Your task to perform on an android device: open app "DuckDuckGo Privacy Browser" (install if not already installed) and enter user name: "cleaving@outlook.com" and password: "freighters" Image 0: 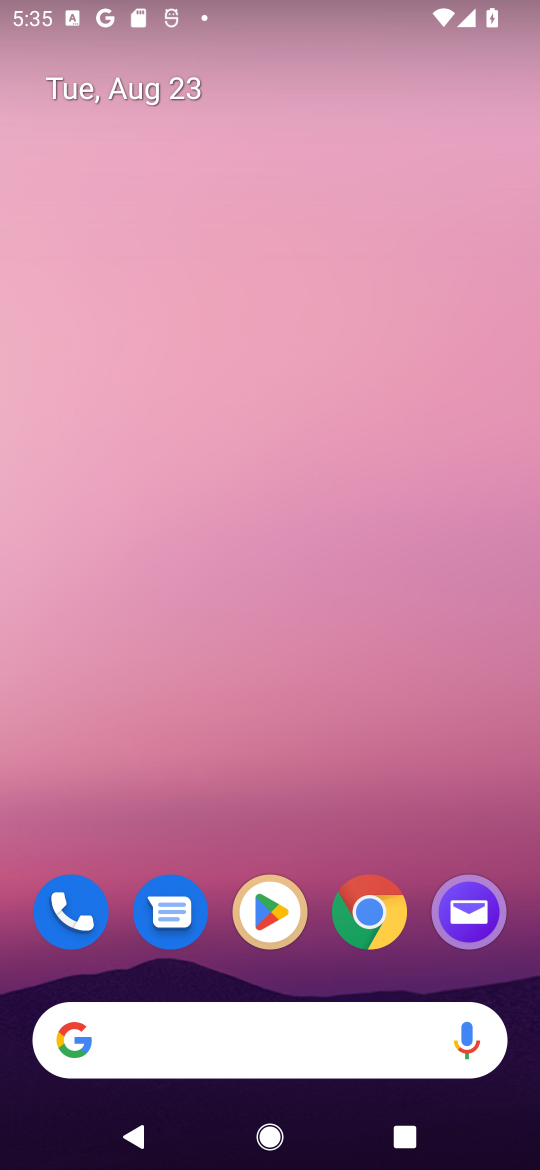
Step 0: drag from (226, 1011) to (217, 234)
Your task to perform on an android device: open app "DuckDuckGo Privacy Browser" (install if not already installed) and enter user name: "cleaving@outlook.com" and password: "freighters" Image 1: 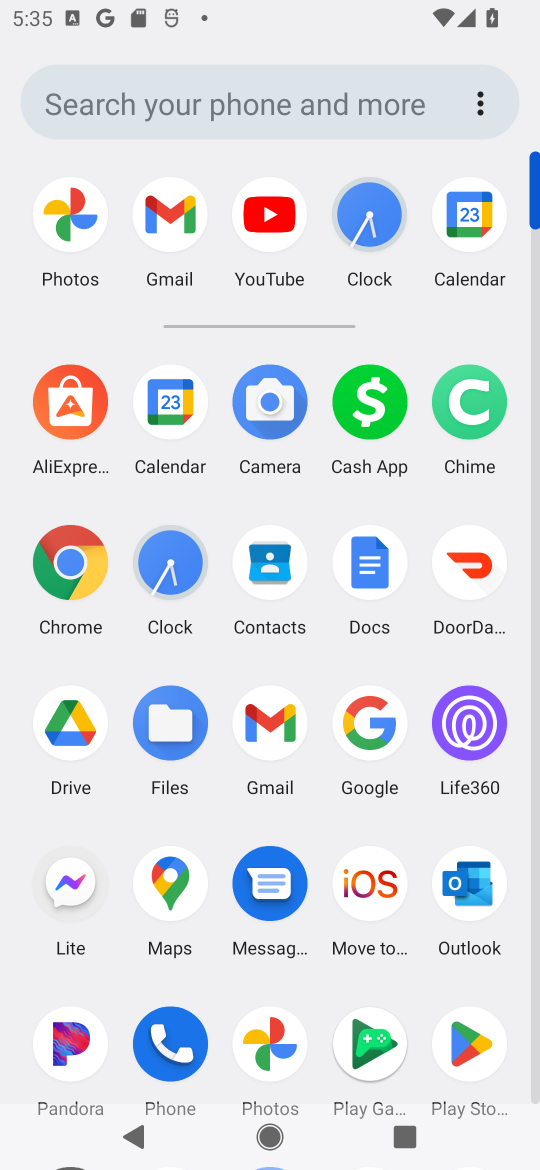
Step 1: drag from (309, 982) to (299, 396)
Your task to perform on an android device: open app "DuckDuckGo Privacy Browser" (install if not already installed) and enter user name: "cleaving@outlook.com" and password: "freighters" Image 2: 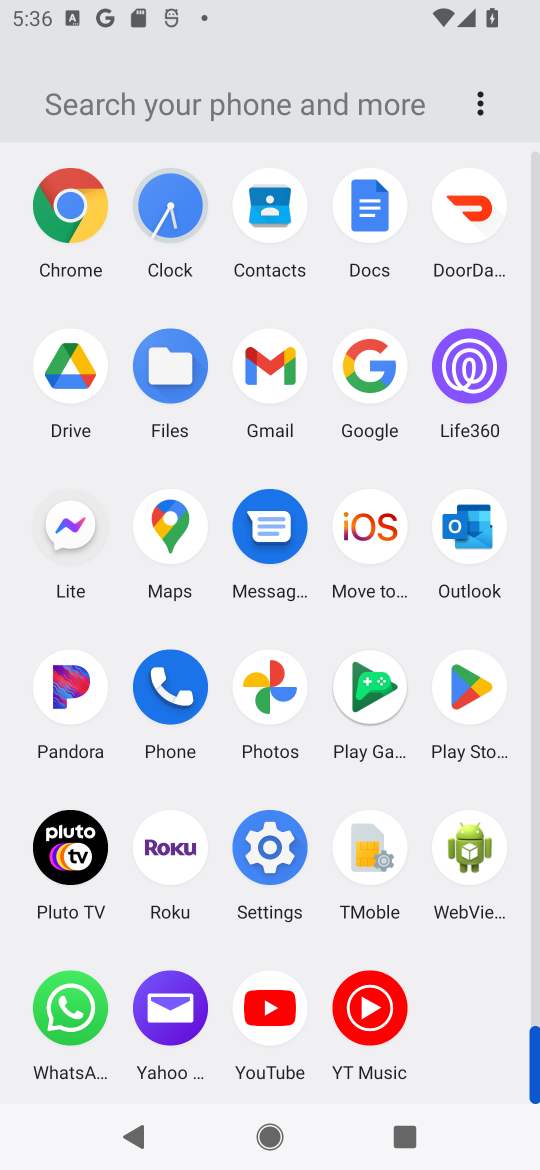
Step 2: click (466, 672)
Your task to perform on an android device: open app "DuckDuckGo Privacy Browser" (install if not already installed) and enter user name: "cleaving@outlook.com" and password: "freighters" Image 3: 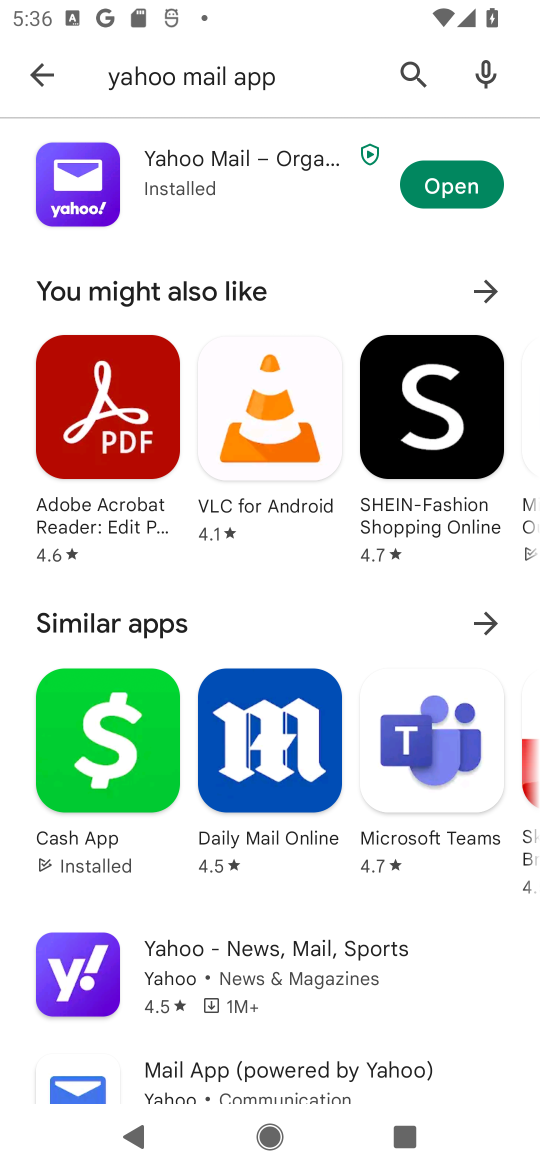
Step 3: click (37, 82)
Your task to perform on an android device: open app "DuckDuckGo Privacy Browser" (install if not already installed) and enter user name: "cleaving@outlook.com" and password: "freighters" Image 4: 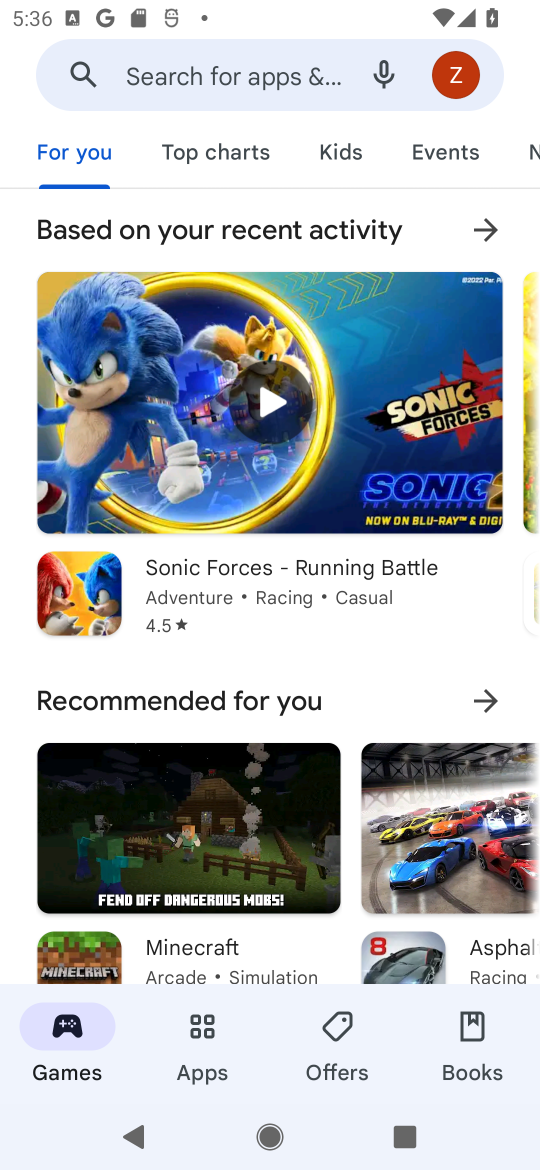
Step 4: click (243, 52)
Your task to perform on an android device: open app "DuckDuckGo Privacy Browser" (install if not already installed) and enter user name: "cleaving@outlook.com" and password: "freighters" Image 5: 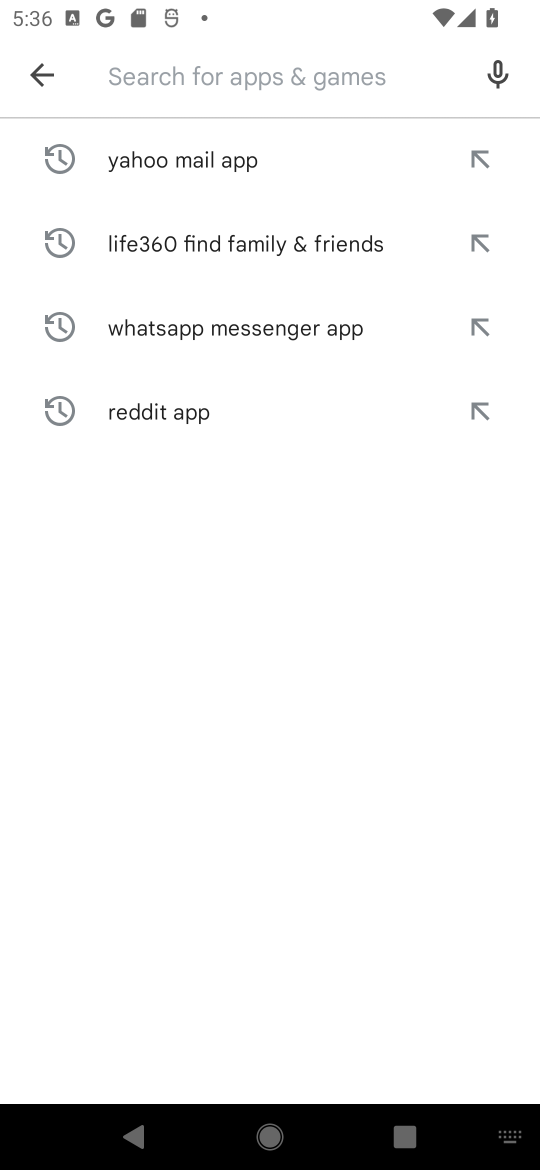
Step 5: type "DuckDuckGo Privacy Browser "
Your task to perform on an android device: open app "DuckDuckGo Privacy Browser" (install if not already installed) and enter user name: "cleaving@outlook.com" and password: "freighters" Image 6: 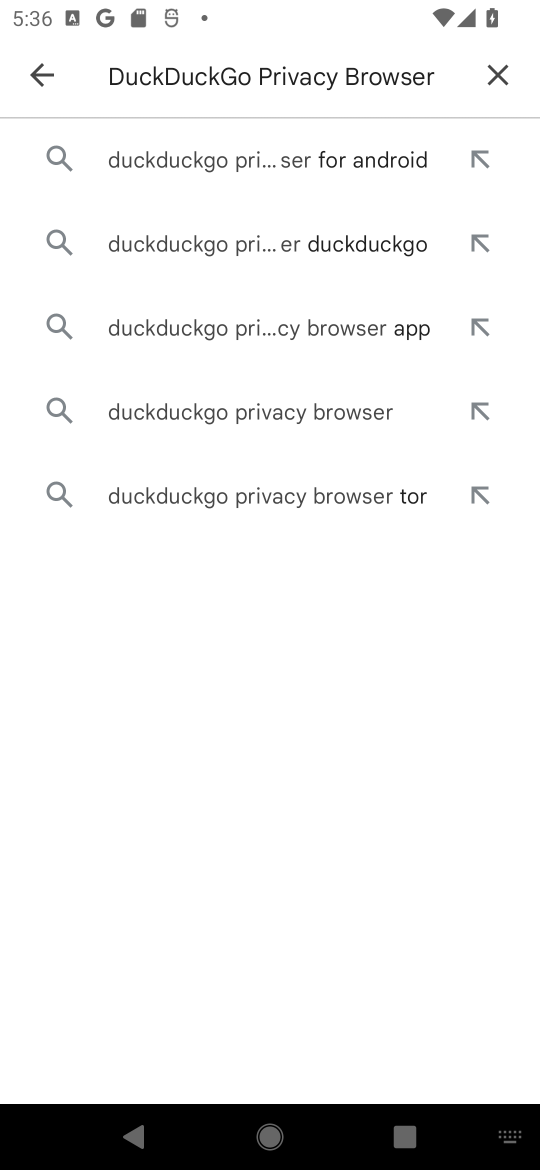
Step 6: click (292, 155)
Your task to perform on an android device: open app "DuckDuckGo Privacy Browser" (install if not already installed) and enter user name: "cleaving@outlook.com" and password: "freighters" Image 7: 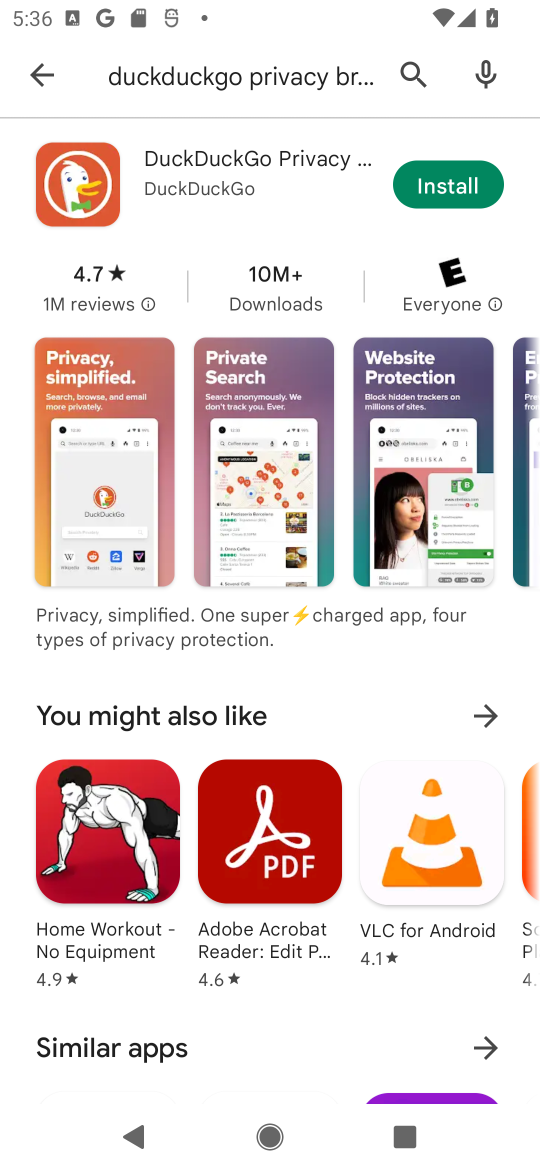
Step 7: click (461, 183)
Your task to perform on an android device: open app "DuckDuckGo Privacy Browser" (install if not already installed) and enter user name: "cleaving@outlook.com" and password: "freighters" Image 8: 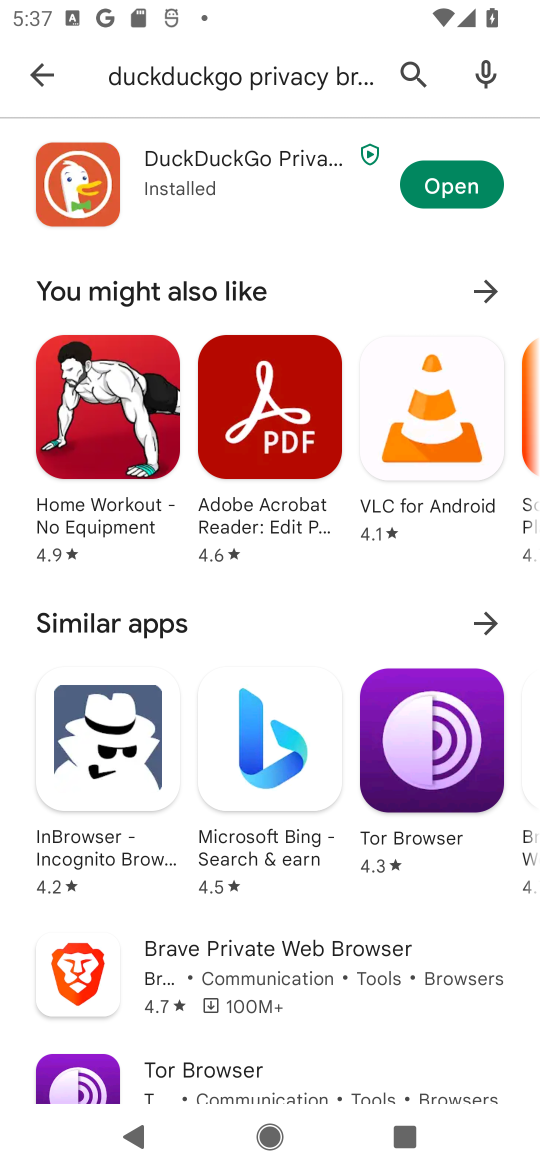
Step 8: click (461, 183)
Your task to perform on an android device: open app "DuckDuckGo Privacy Browser" (install if not already installed) and enter user name: "cleaving@outlook.com" and password: "freighters" Image 9: 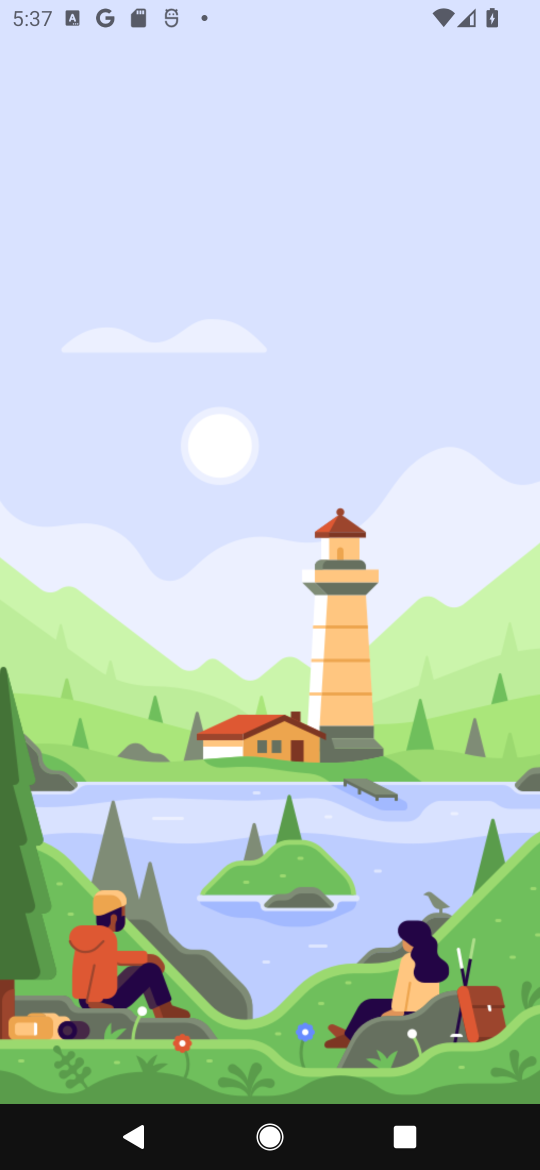
Step 9: task complete